Your task to perform on an android device: Open Amazon Image 0: 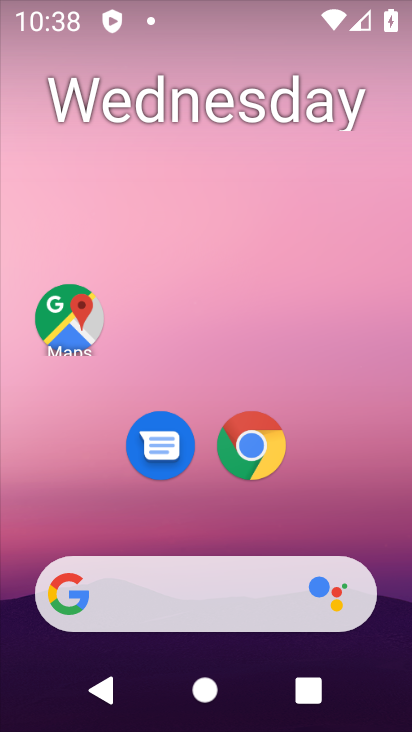
Step 0: drag from (317, 526) to (292, 117)
Your task to perform on an android device: Open Amazon Image 1: 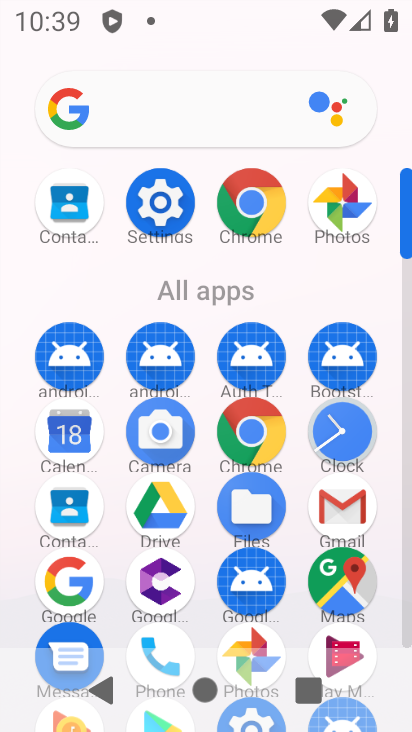
Step 1: click (71, 579)
Your task to perform on an android device: Open Amazon Image 2: 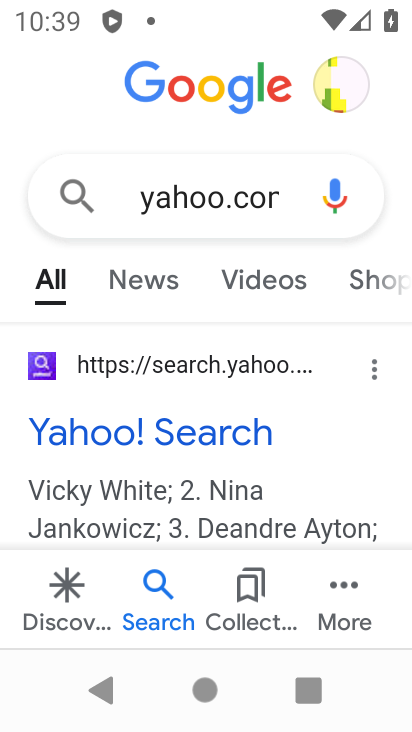
Step 2: click (191, 194)
Your task to perform on an android device: Open Amazon Image 3: 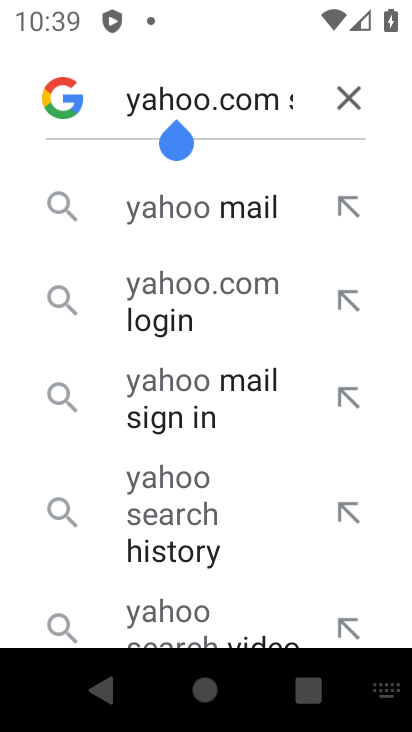
Step 3: click (352, 108)
Your task to perform on an android device: Open Amazon Image 4: 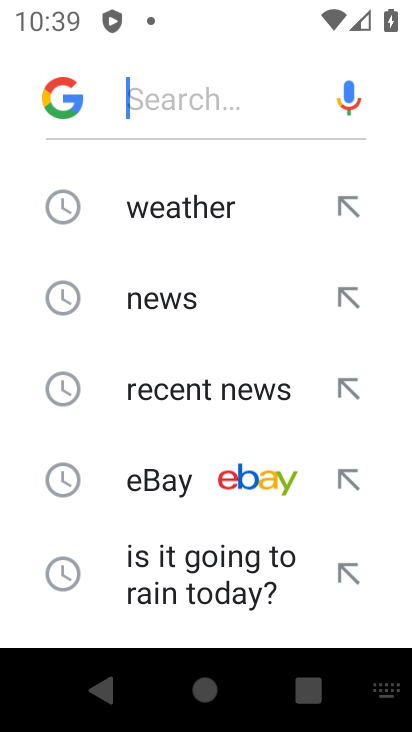
Step 4: type "Amazon"
Your task to perform on an android device: Open Amazon Image 5: 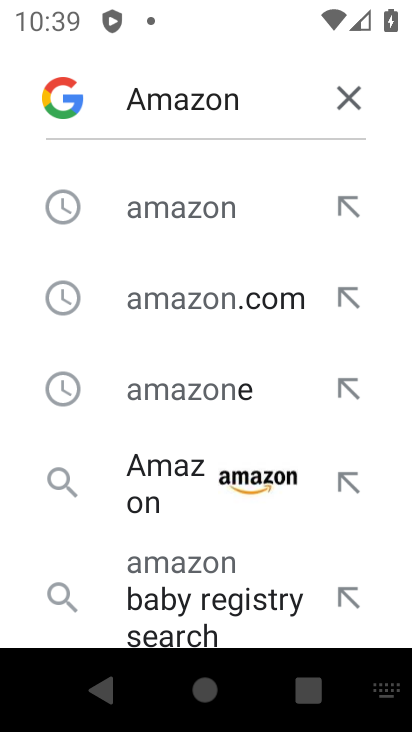
Step 5: click (184, 229)
Your task to perform on an android device: Open Amazon Image 6: 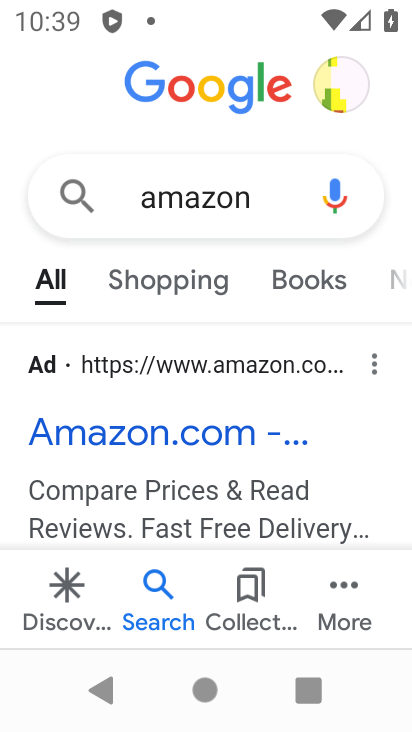
Step 6: task complete